Your task to perform on an android device: Open notification settings Image 0: 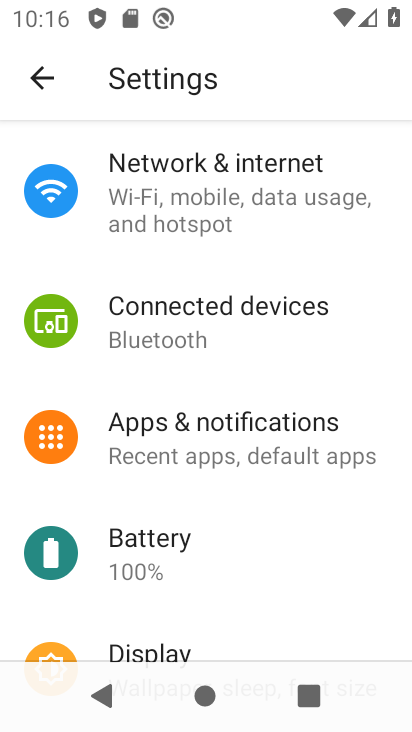
Step 0: press home button
Your task to perform on an android device: Open notification settings Image 1: 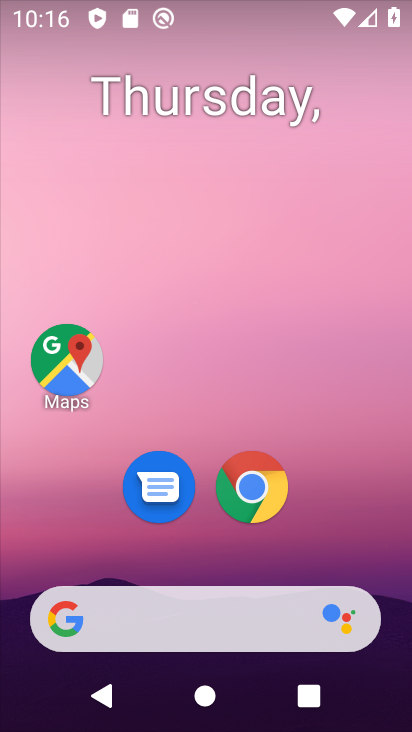
Step 1: drag from (318, 536) to (228, 183)
Your task to perform on an android device: Open notification settings Image 2: 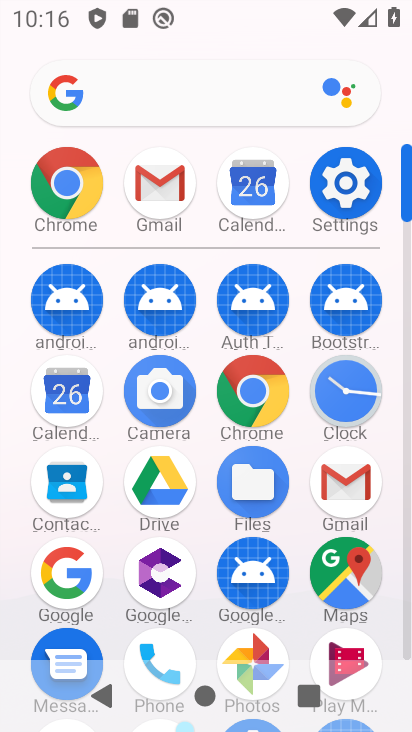
Step 2: click (344, 197)
Your task to perform on an android device: Open notification settings Image 3: 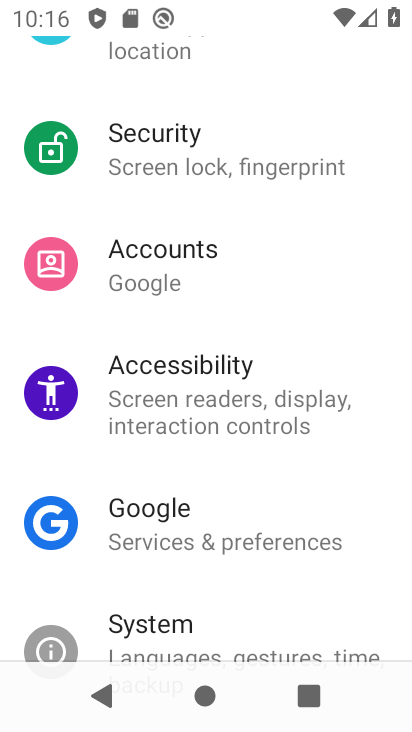
Step 3: drag from (262, 201) to (245, 677)
Your task to perform on an android device: Open notification settings Image 4: 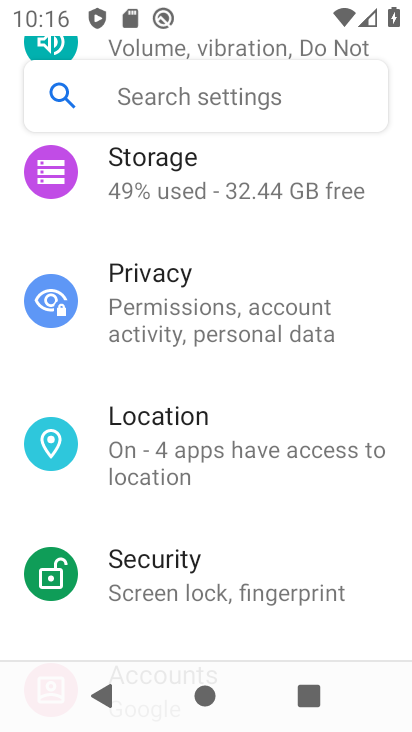
Step 4: drag from (265, 273) to (265, 529)
Your task to perform on an android device: Open notification settings Image 5: 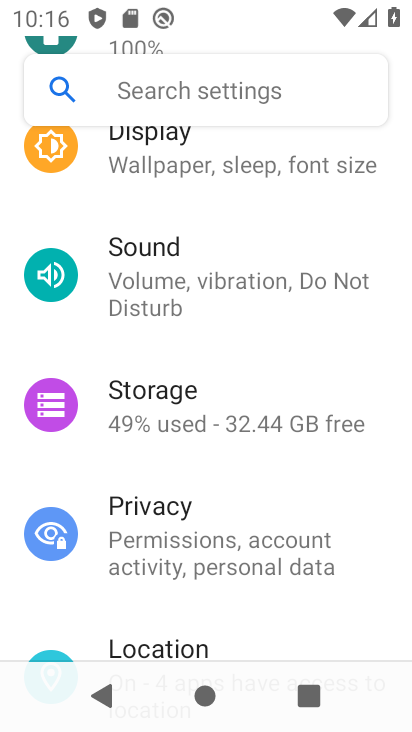
Step 5: drag from (245, 241) to (228, 475)
Your task to perform on an android device: Open notification settings Image 6: 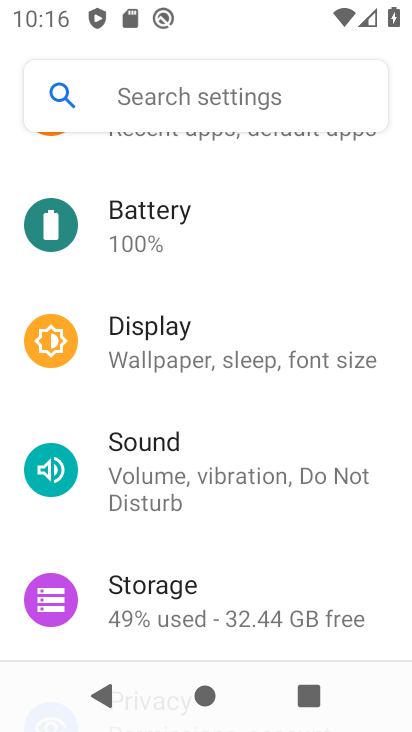
Step 6: drag from (273, 170) to (262, 389)
Your task to perform on an android device: Open notification settings Image 7: 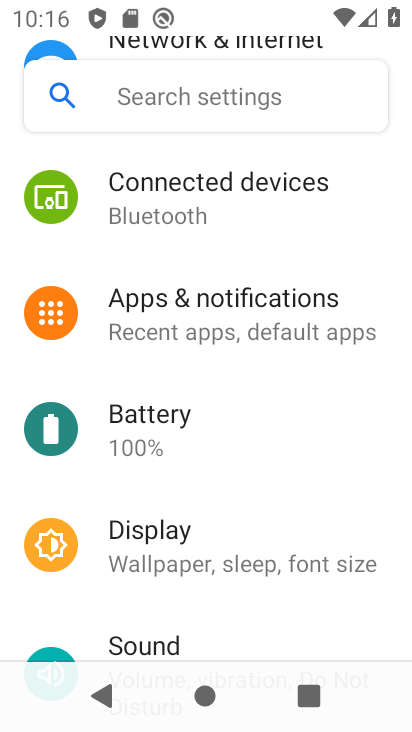
Step 7: click (223, 329)
Your task to perform on an android device: Open notification settings Image 8: 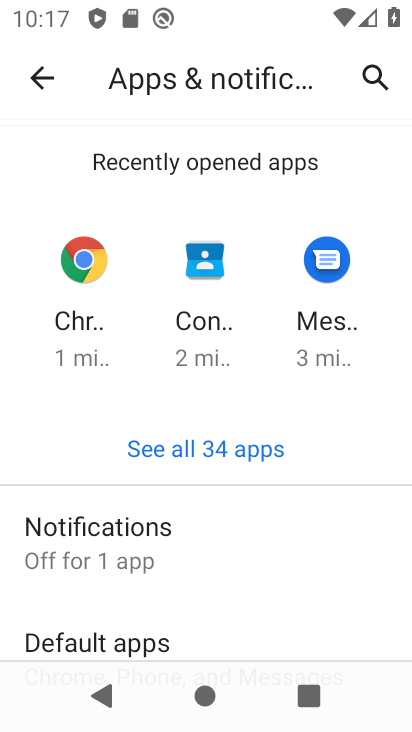
Step 8: click (126, 550)
Your task to perform on an android device: Open notification settings Image 9: 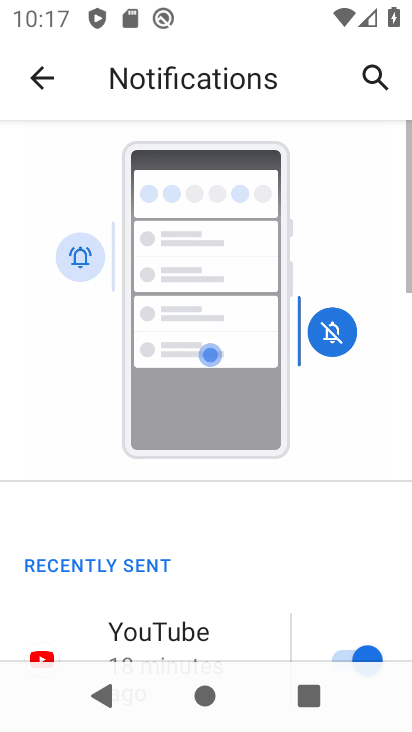
Step 9: task complete